Your task to perform on an android device: turn off notifications settings in the gmail app Image 0: 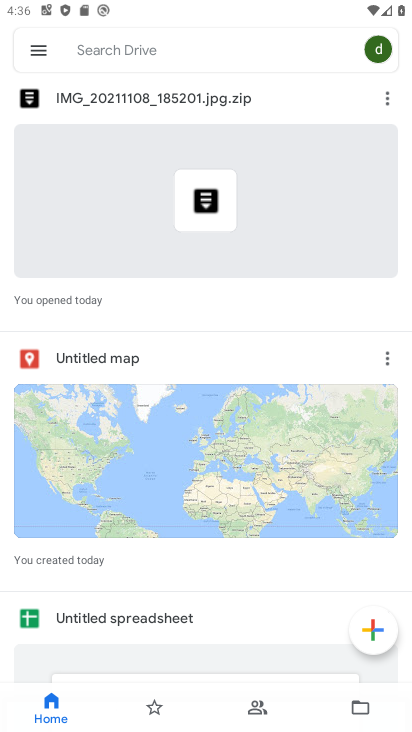
Step 0: press home button
Your task to perform on an android device: turn off notifications settings in the gmail app Image 1: 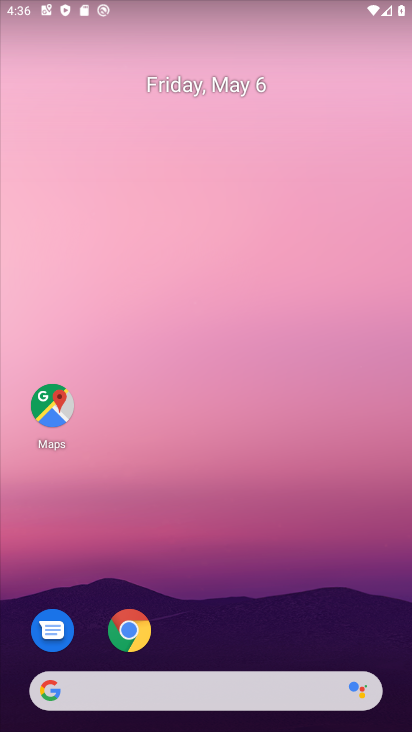
Step 1: drag from (282, 581) to (321, 38)
Your task to perform on an android device: turn off notifications settings in the gmail app Image 2: 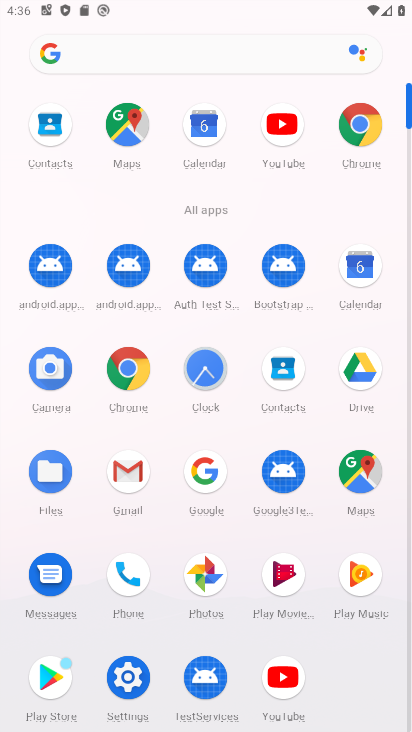
Step 2: click (119, 473)
Your task to perform on an android device: turn off notifications settings in the gmail app Image 3: 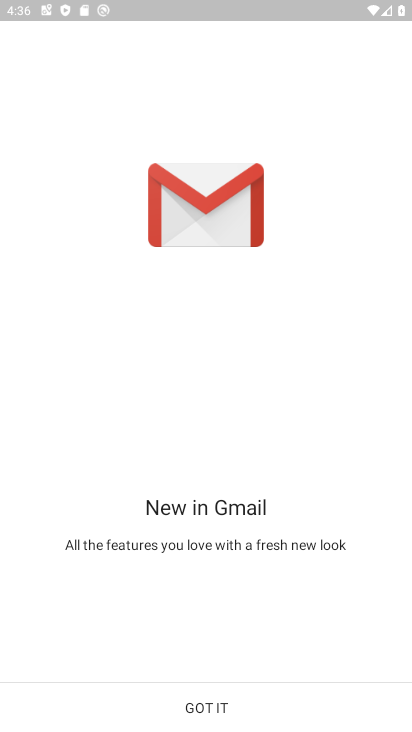
Step 3: click (224, 699)
Your task to perform on an android device: turn off notifications settings in the gmail app Image 4: 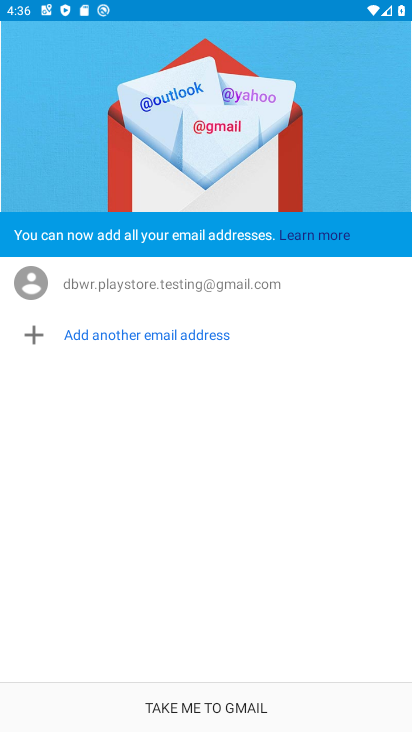
Step 4: click (224, 699)
Your task to perform on an android device: turn off notifications settings in the gmail app Image 5: 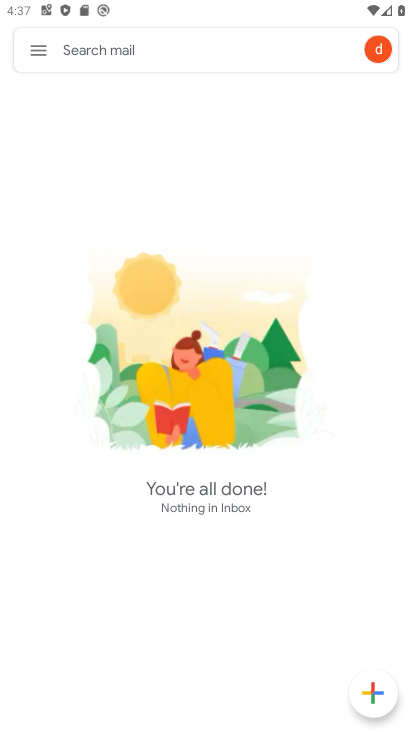
Step 5: click (37, 51)
Your task to perform on an android device: turn off notifications settings in the gmail app Image 6: 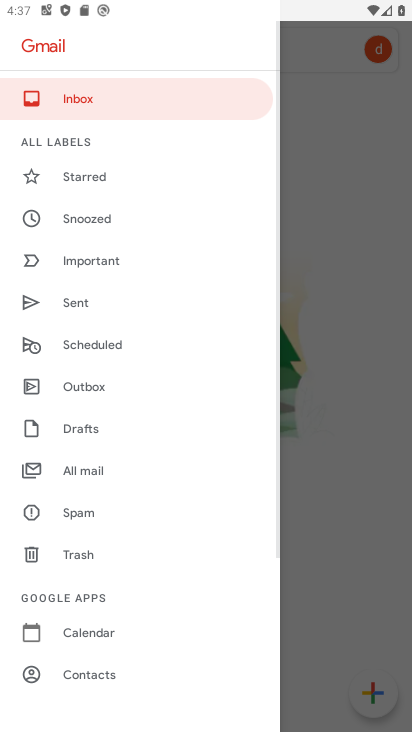
Step 6: drag from (113, 673) to (183, 384)
Your task to perform on an android device: turn off notifications settings in the gmail app Image 7: 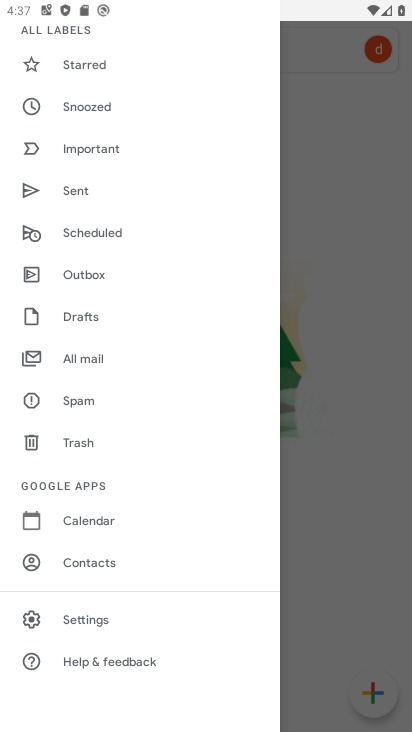
Step 7: click (100, 610)
Your task to perform on an android device: turn off notifications settings in the gmail app Image 8: 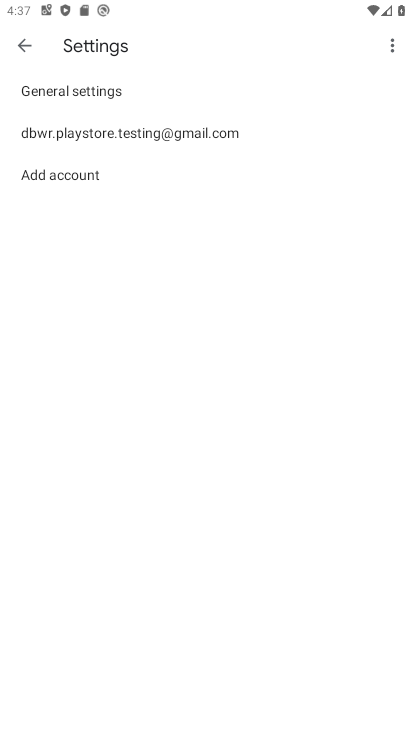
Step 8: click (123, 140)
Your task to perform on an android device: turn off notifications settings in the gmail app Image 9: 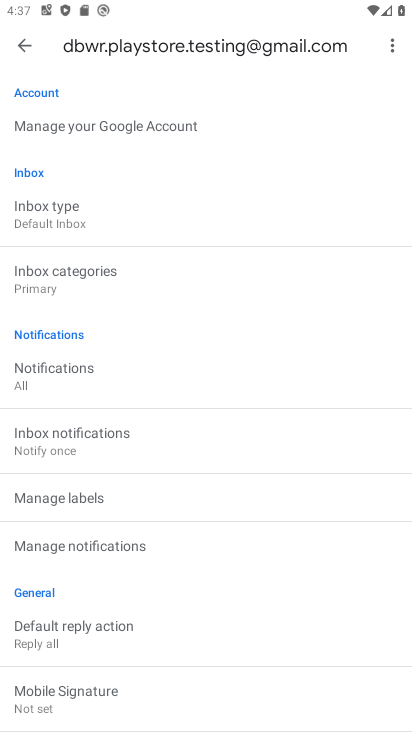
Step 9: click (119, 547)
Your task to perform on an android device: turn off notifications settings in the gmail app Image 10: 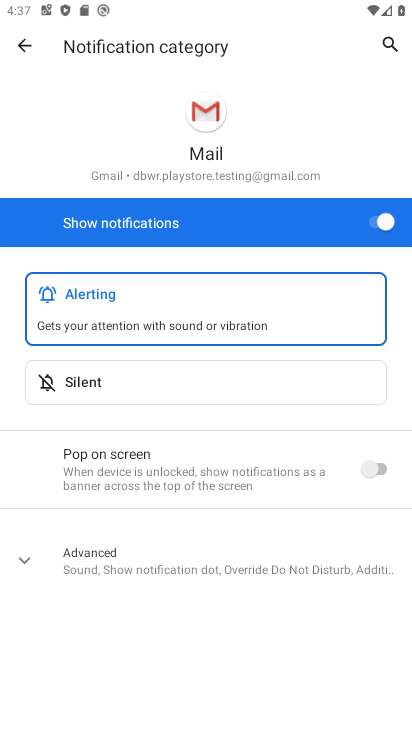
Step 10: click (367, 224)
Your task to perform on an android device: turn off notifications settings in the gmail app Image 11: 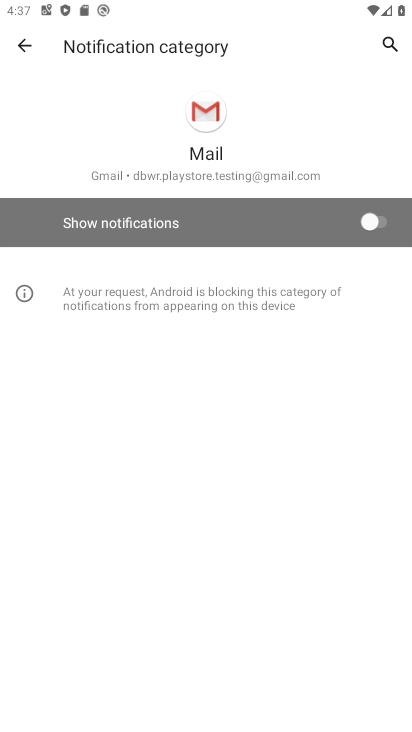
Step 11: task complete